Your task to perform on an android device: refresh tabs in the chrome app Image 0: 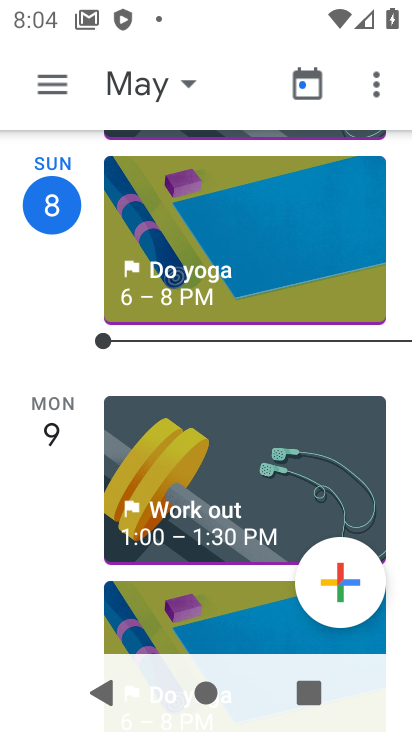
Step 0: press back button
Your task to perform on an android device: refresh tabs in the chrome app Image 1: 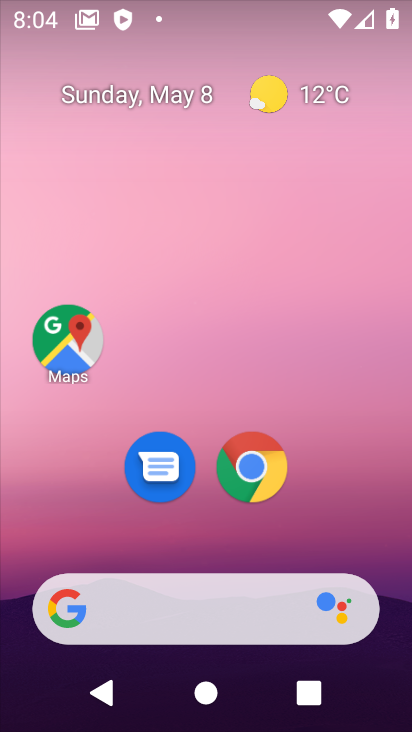
Step 1: click (233, 449)
Your task to perform on an android device: refresh tabs in the chrome app Image 2: 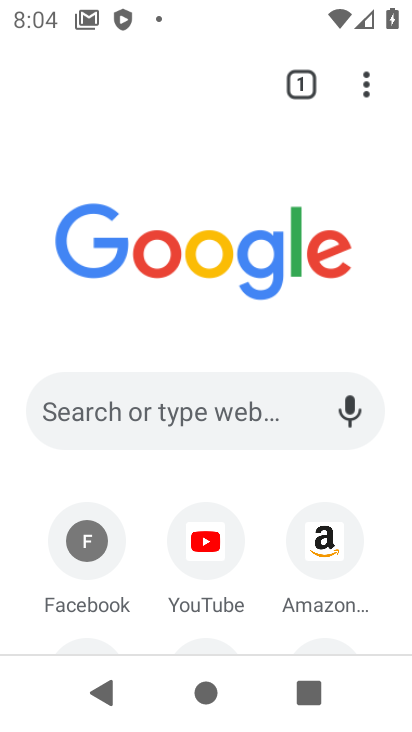
Step 2: click (364, 76)
Your task to perform on an android device: refresh tabs in the chrome app Image 3: 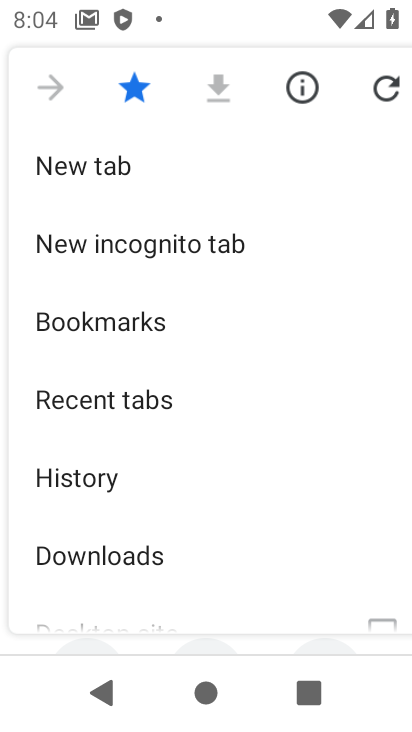
Step 3: click (388, 85)
Your task to perform on an android device: refresh tabs in the chrome app Image 4: 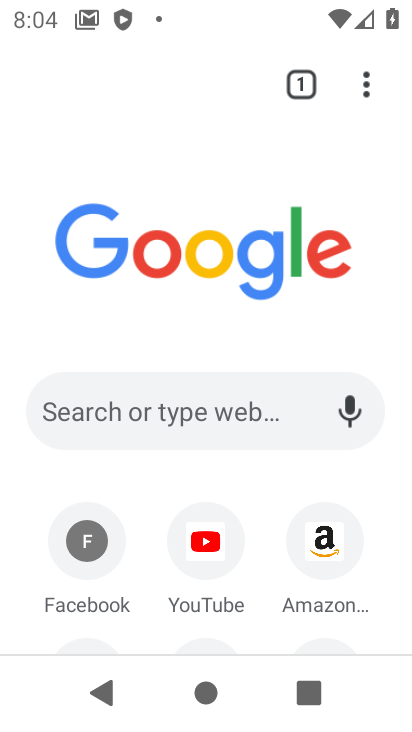
Step 4: task complete